Your task to perform on an android device: What's the weather going to be this weekend? Image 0: 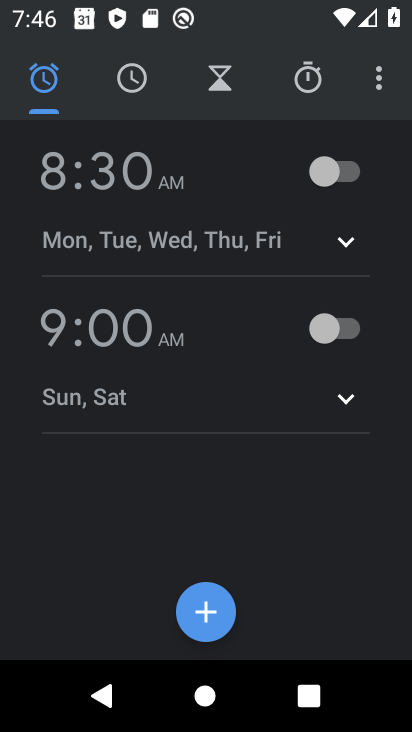
Step 0: press home button
Your task to perform on an android device: What's the weather going to be this weekend? Image 1: 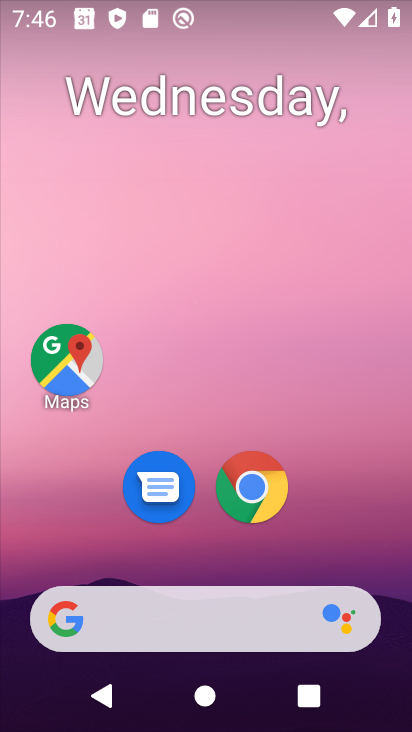
Step 1: click (107, 620)
Your task to perform on an android device: What's the weather going to be this weekend? Image 2: 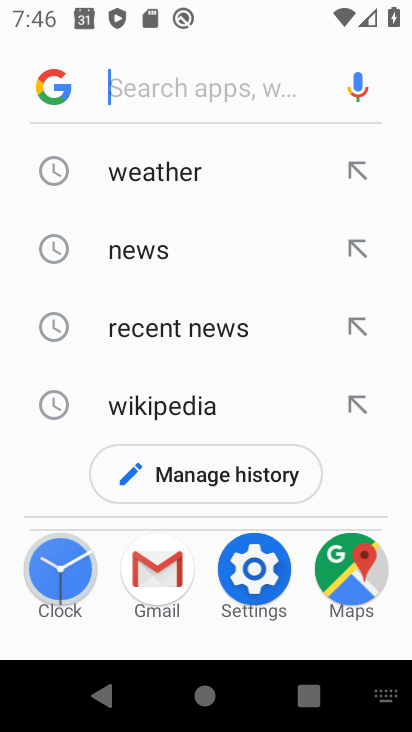
Step 2: click (139, 180)
Your task to perform on an android device: What's the weather going to be this weekend? Image 3: 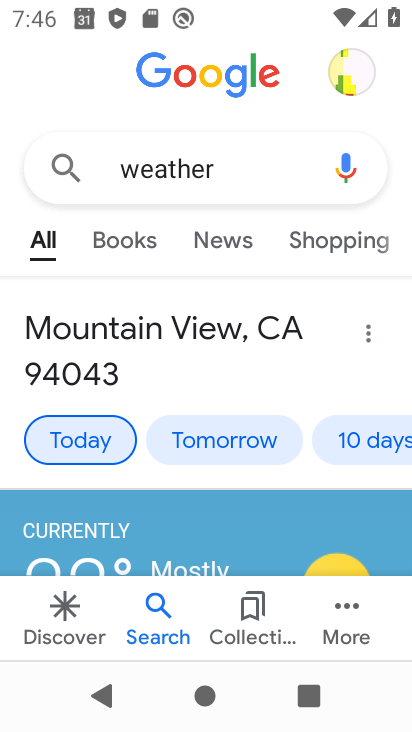
Step 3: click (360, 435)
Your task to perform on an android device: What's the weather going to be this weekend? Image 4: 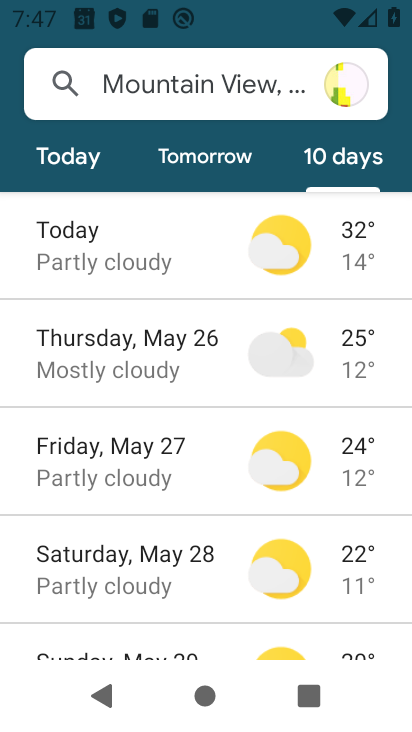
Step 4: task complete